Your task to perform on an android device: Open Chrome and go to the settings page Image 0: 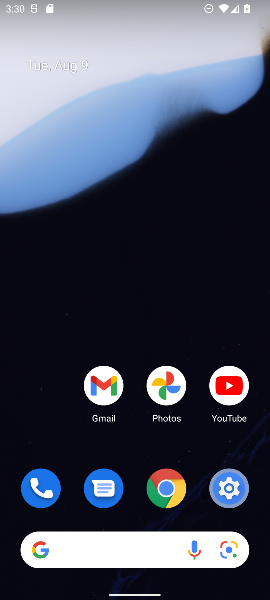
Step 0: drag from (197, 456) to (158, 183)
Your task to perform on an android device: Open Chrome and go to the settings page Image 1: 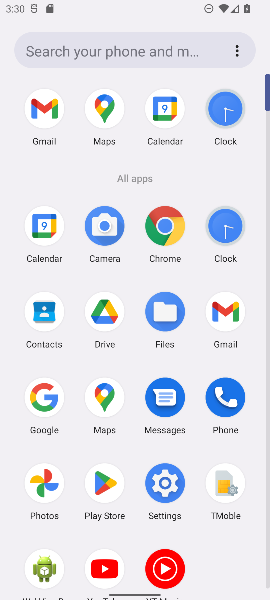
Step 1: click (173, 236)
Your task to perform on an android device: Open Chrome and go to the settings page Image 2: 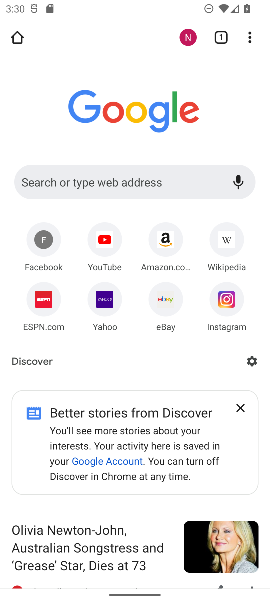
Step 2: click (251, 40)
Your task to perform on an android device: Open Chrome and go to the settings page Image 3: 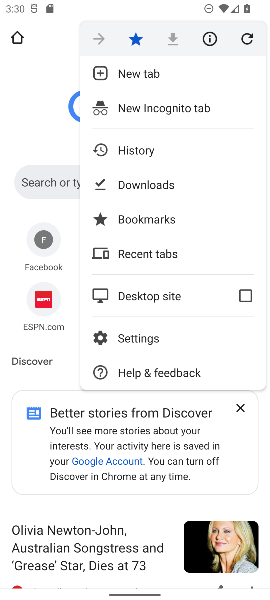
Step 3: click (136, 345)
Your task to perform on an android device: Open Chrome and go to the settings page Image 4: 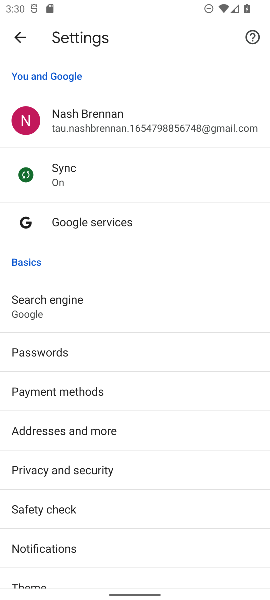
Step 4: task complete